Your task to perform on an android device: Show me the alarms in the clock app Image 0: 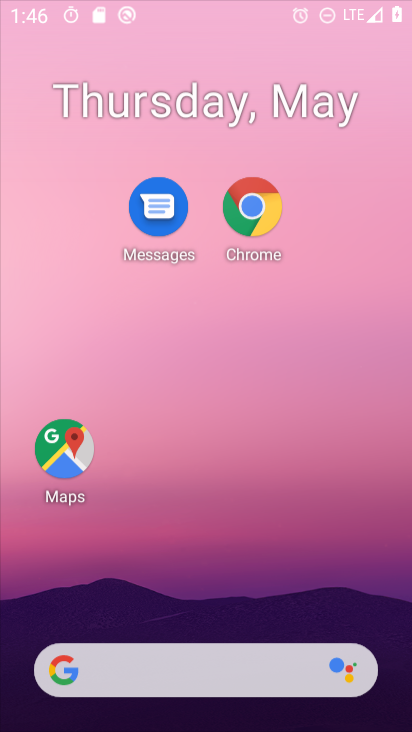
Step 0: drag from (210, 520) to (157, 84)
Your task to perform on an android device: Show me the alarms in the clock app Image 1: 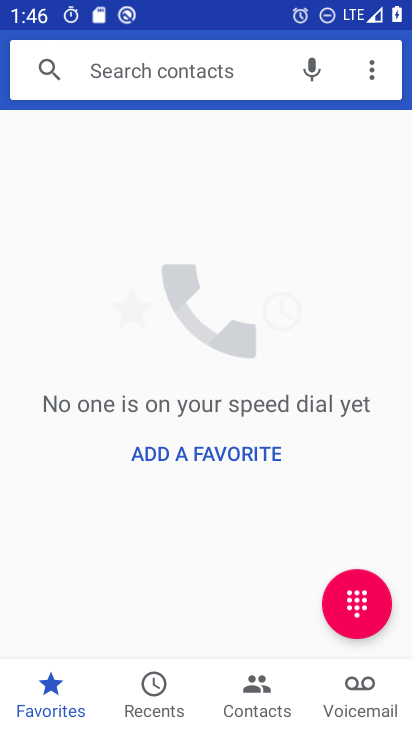
Step 1: press home button
Your task to perform on an android device: Show me the alarms in the clock app Image 2: 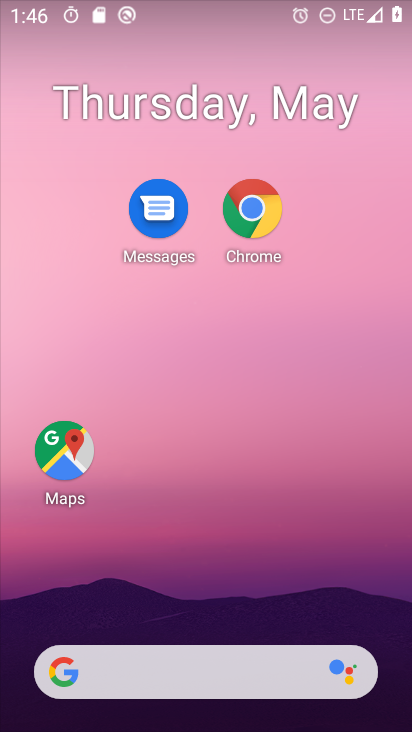
Step 2: drag from (216, 604) to (163, 45)
Your task to perform on an android device: Show me the alarms in the clock app Image 3: 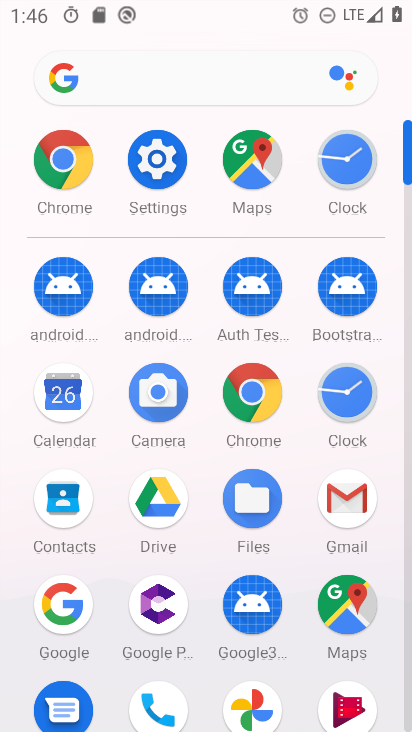
Step 3: click (338, 416)
Your task to perform on an android device: Show me the alarms in the clock app Image 4: 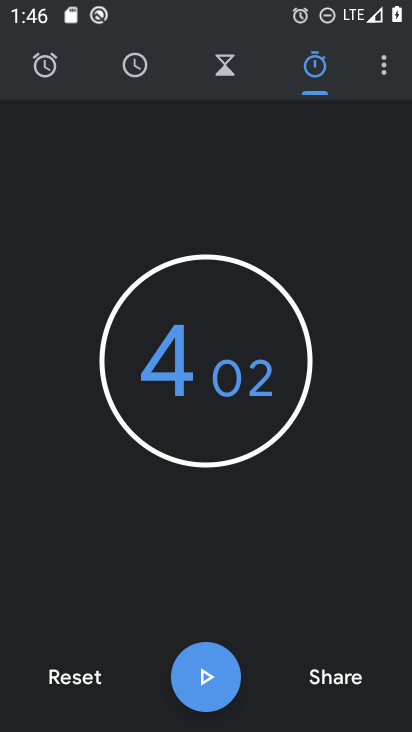
Step 4: click (56, 76)
Your task to perform on an android device: Show me the alarms in the clock app Image 5: 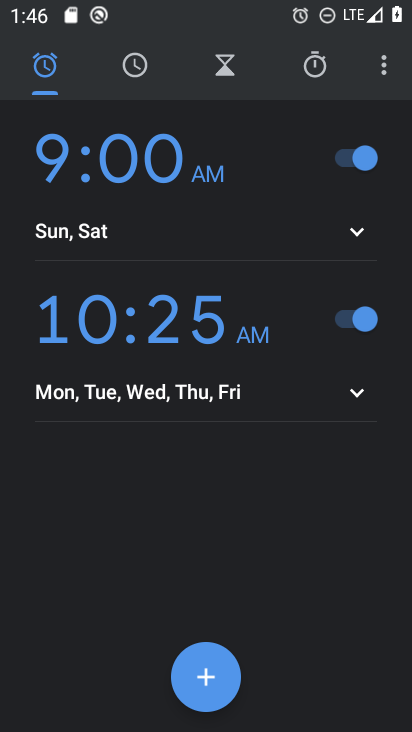
Step 5: task complete